Your task to perform on an android device: Search for "razer deathadder" on amazon, select the first entry, add it to the cart, then select checkout. Image 0: 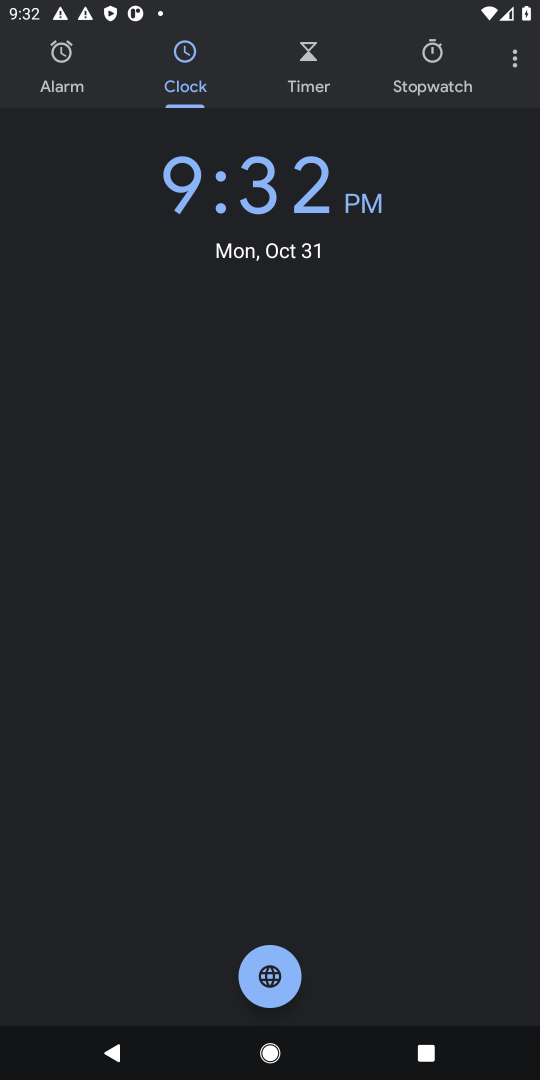
Step 0: press home button
Your task to perform on an android device: Search for "razer deathadder" on amazon, select the first entry, add it to the cart, then select checkout. Image 1: 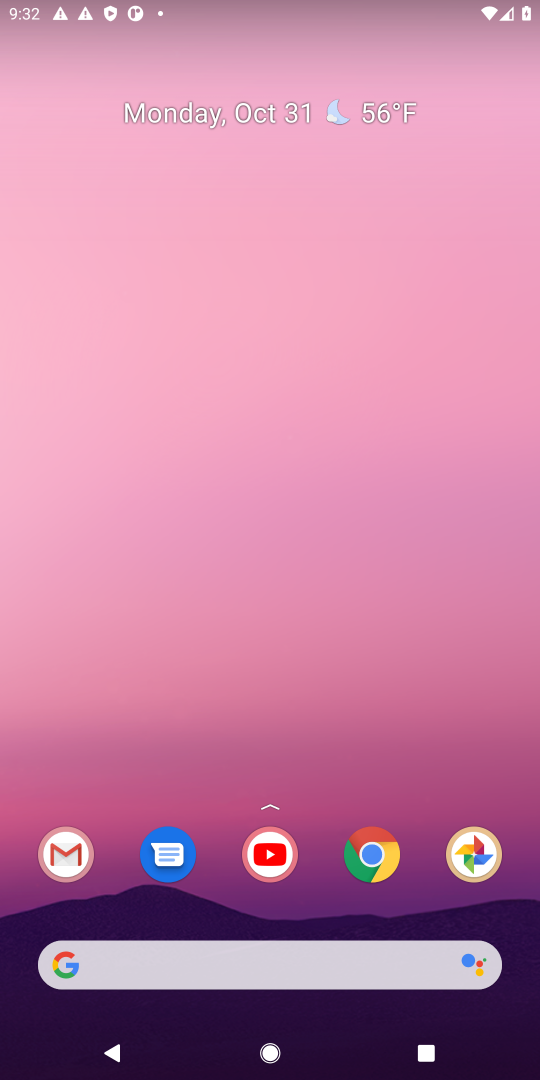
Step 1: click (270, 949)
Your task to perform on an android device: Search for "razer deathadder" on amazon, select the first entry, add it to the cart, then select checkout. Image 2: 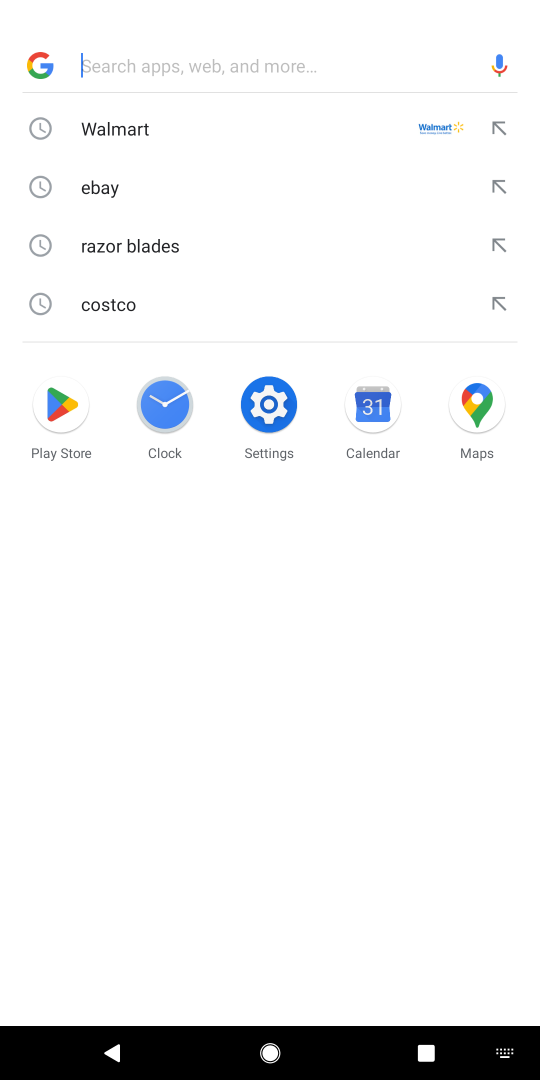
Step 2: type "amazone"
Your task to perform on an android device: Search for "razer deathadder" on amazon, select the first entry, add it to the cart, then select checkout. Image 3: 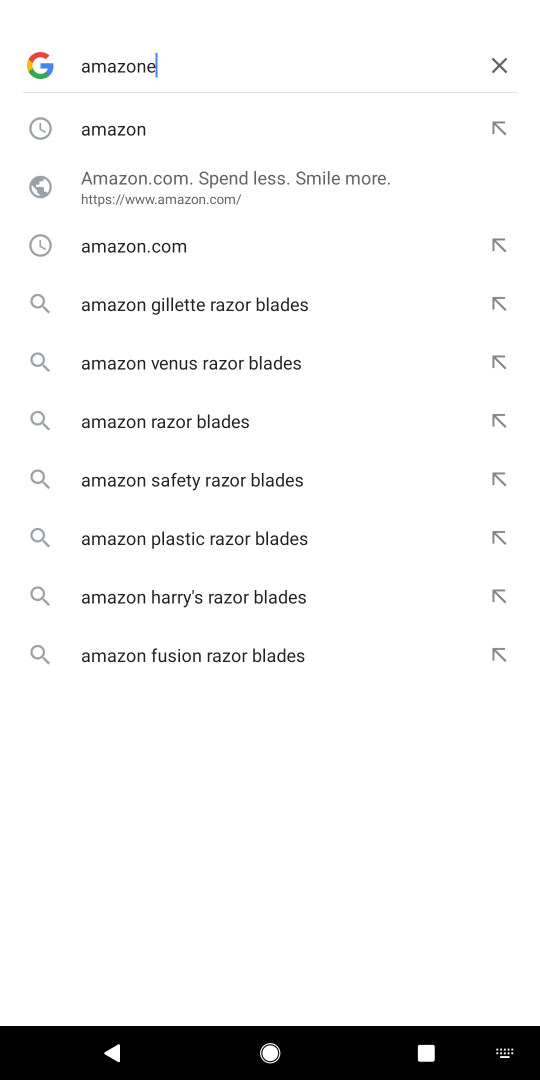
Step 3: click (249, 147)
Your task to perform on an android device: Search for "razer deathadder" on amazon, select the first entry, add it to the cart, then select checkout. Image 4: 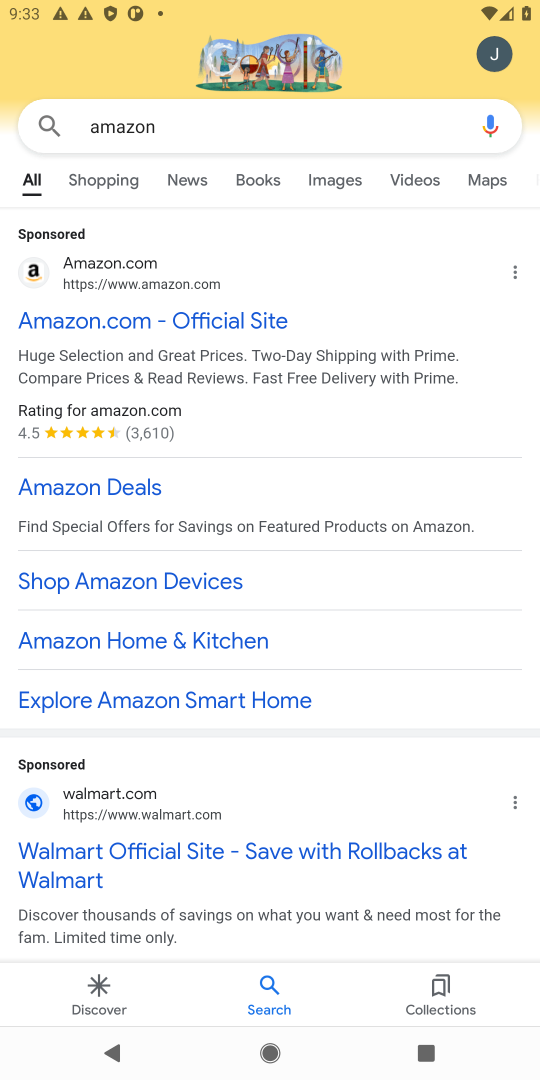
Step 4: click (226, 314)
Your task to perform on an android device: Search for "razer deathadder" on amazon, select the first entry, add it to the cart, then select checkout. Image 5: 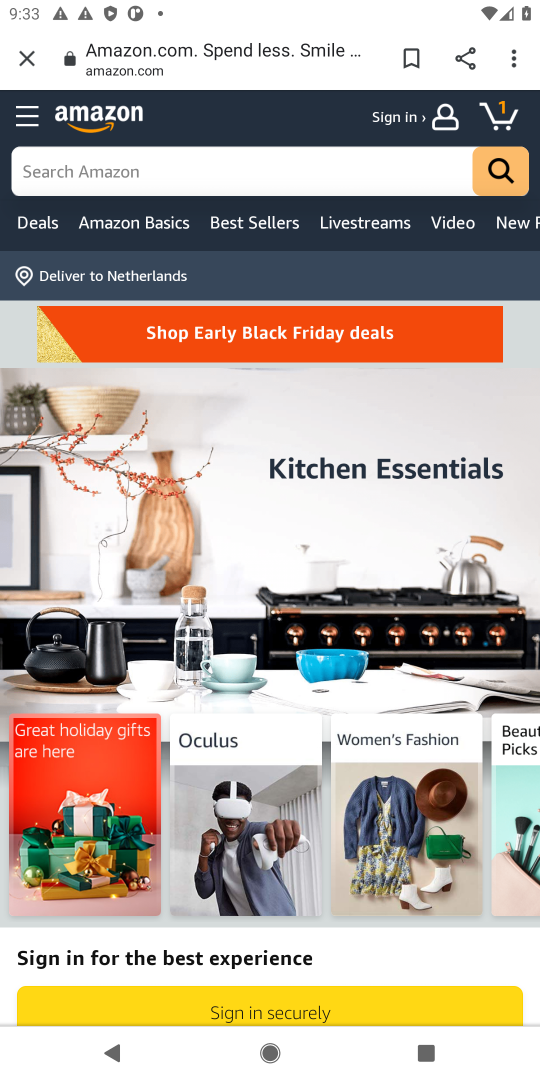
Step 5: click (175, 179)
Your task to perform on an android device: Search for "razer deathadder" on amazon, select the first entry, add it to the cart, then select checkout. Image 6: 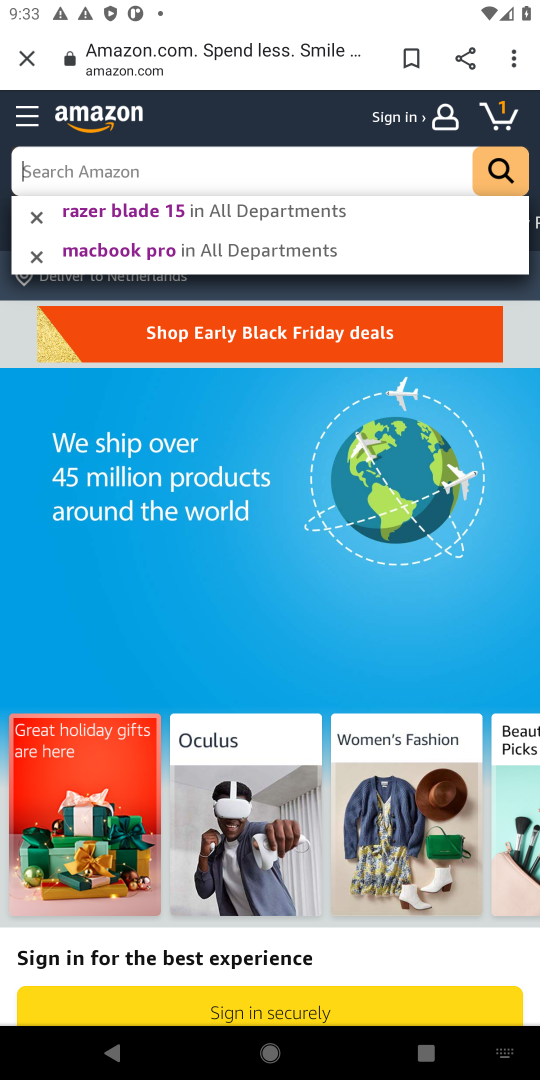
Step 6: type "rezer  deatheradder"
Your task to perform on an android device: Search for "razer deathadder" on amazon, select the first entry, add it to the cart, then select checkout. Image 7: 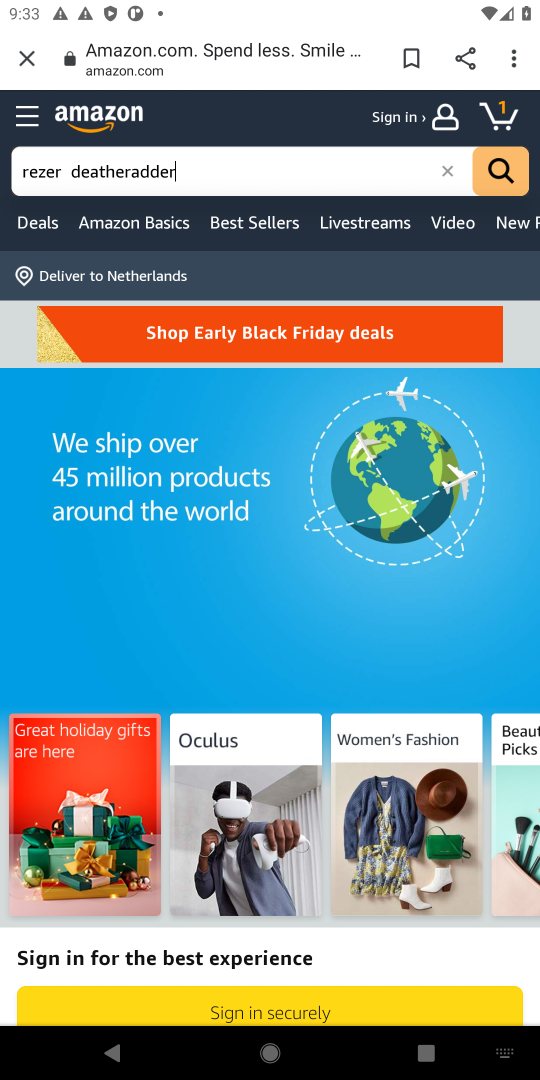
Step 7: click (502, 175)
Your task to perform on an android device: Search for "razer deathadder" on amazon, select the first entry, add it to the cart, then select checkout. Image 8: 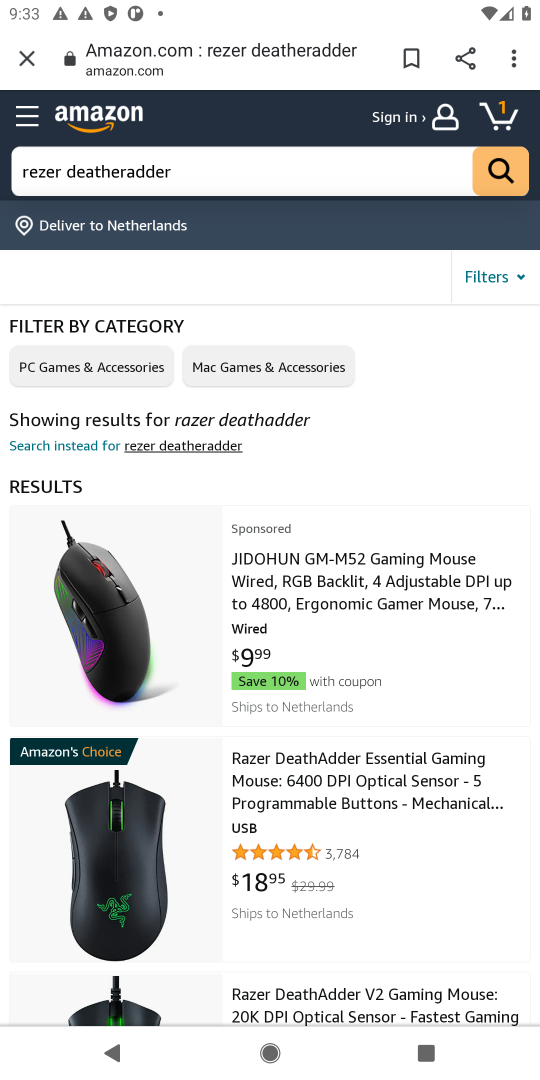
Step 8: click (340, 611)
Your task to perform on an android device: Search for "razer deathadder" on amazon, select the first entry, add it to the cart, then select checkout. Image 9: 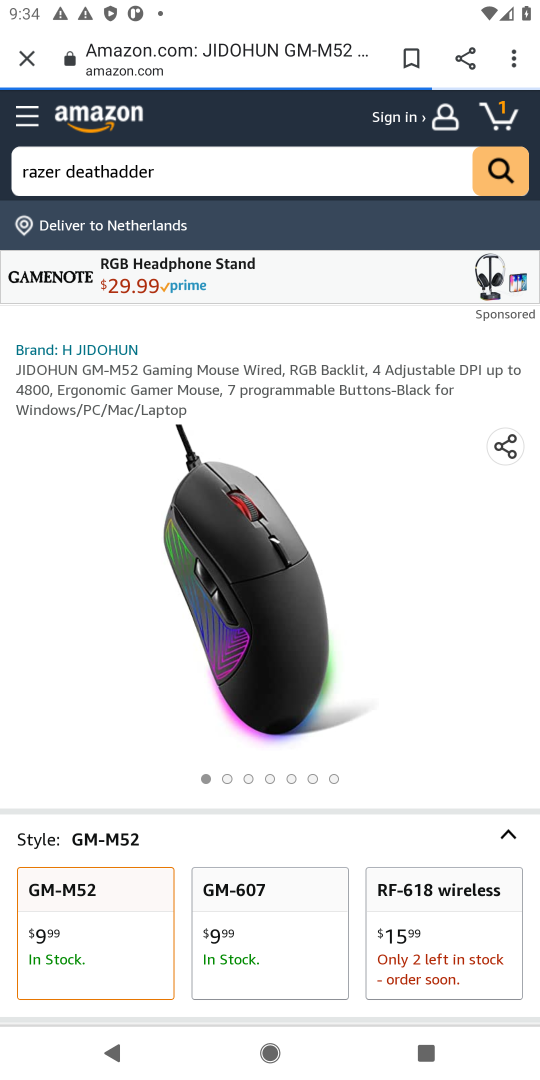
Step 9: drag from (292, 816) to (277, 371)
Your task to perform on an android device: Search for "razer deathadder" on amazon, select the first entry, add it to the cart, then select checkout. Image 10: 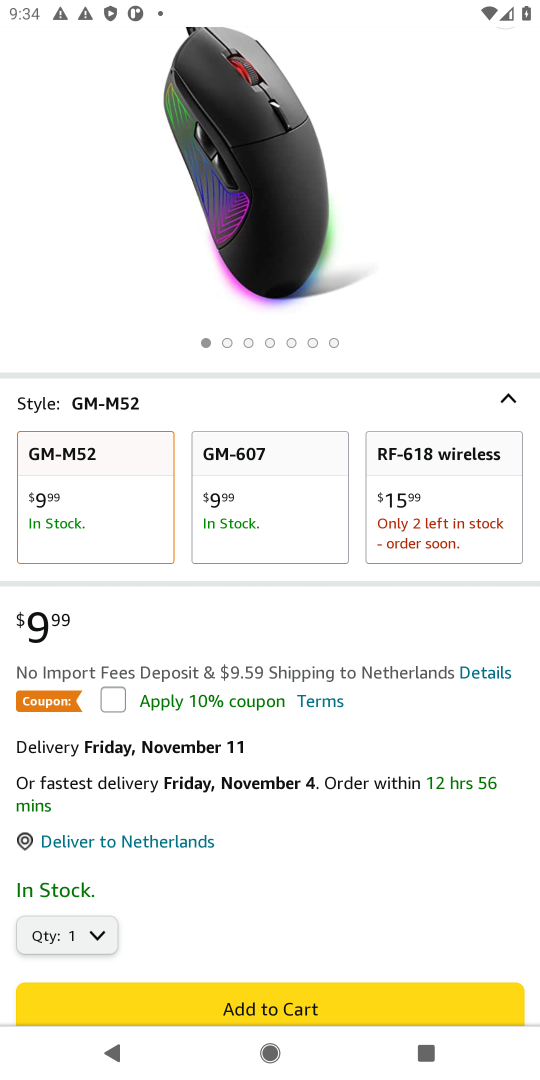
Step 10: click (295, 1002)
Your task to perform on an android device: Search for "razer deathadder" on amazon, select the first entry, add it to the cart, then select checkout. Image 11: 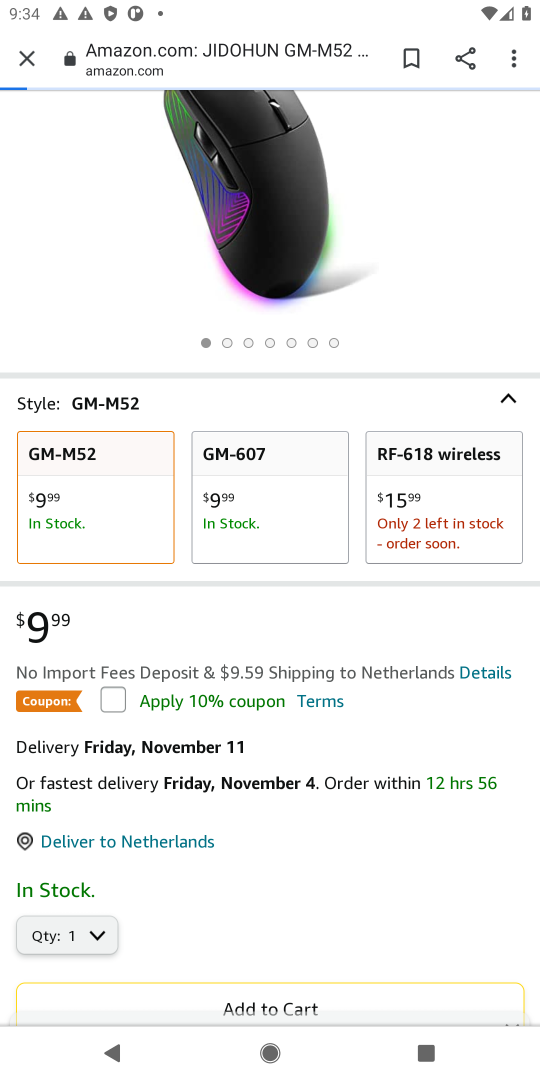
Step 11: task complete